Your task to perform on an android device: Search for top rated sushi restaurant Image 0: 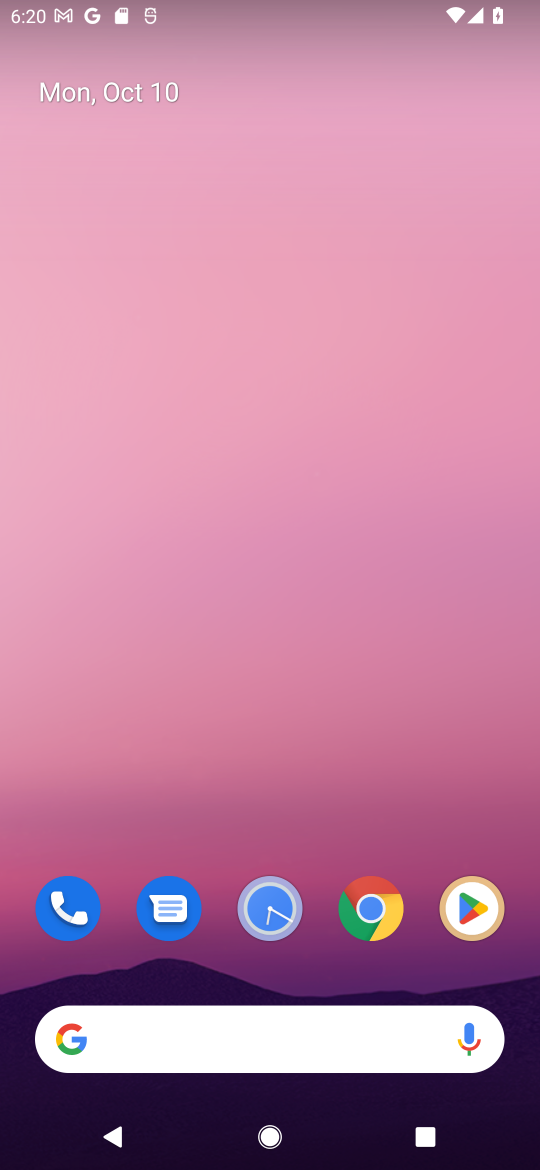
Step 0: drag from (300, 973) to (192, 16)
Your task to perform on an android device: Search for top rated sushi restaurant Image 1: 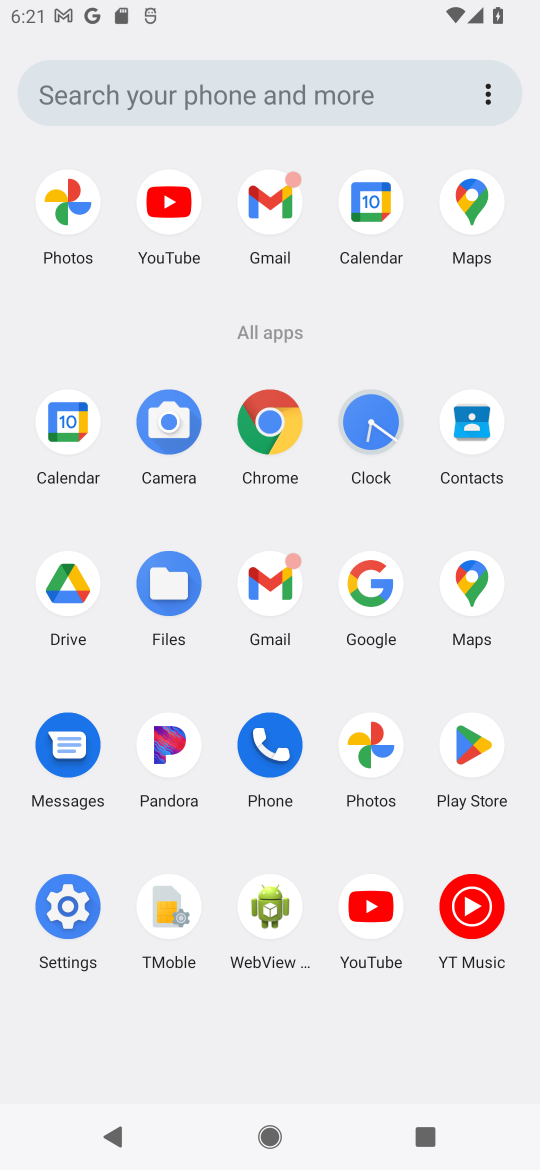
Step 1: click (265, 426)
Your task to perform on an android device: Search for top rated sushi restaurant Image 2: 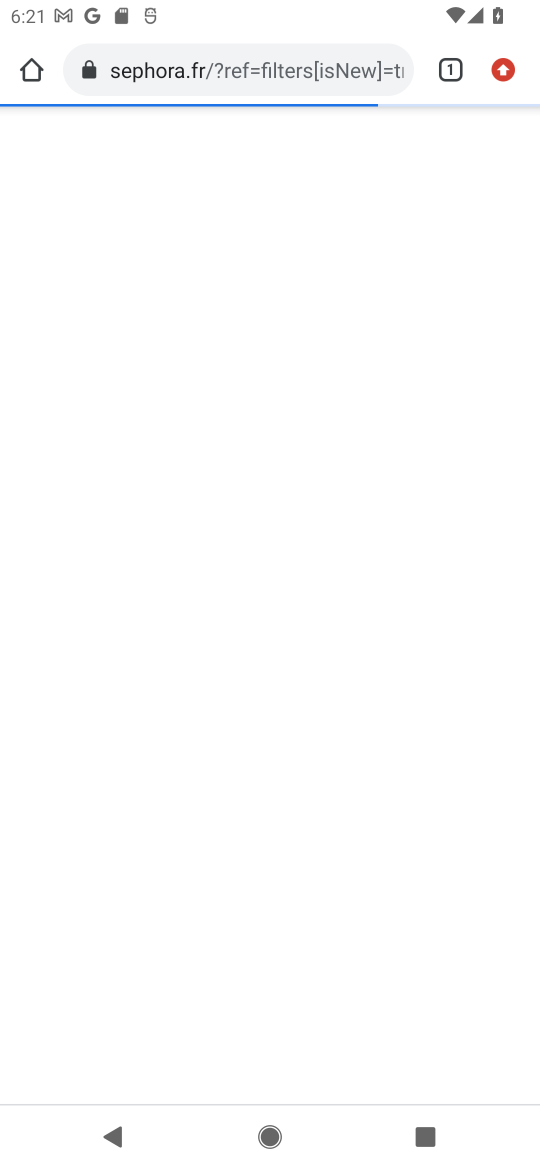
Step 2: click (251, 48)
Your task to perform on an android device: Search for top rated sushi restaurant Image 3: 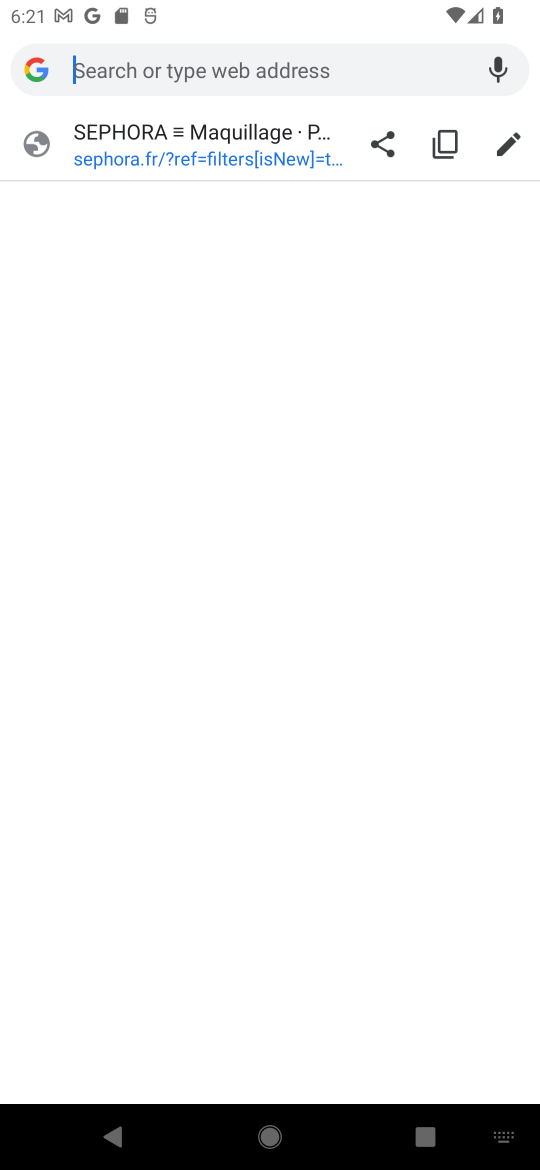
Step 3: type "top rated sushi restaurant"
Your task to perform on an android device: Search for top rated sushi restaurant Image 4: 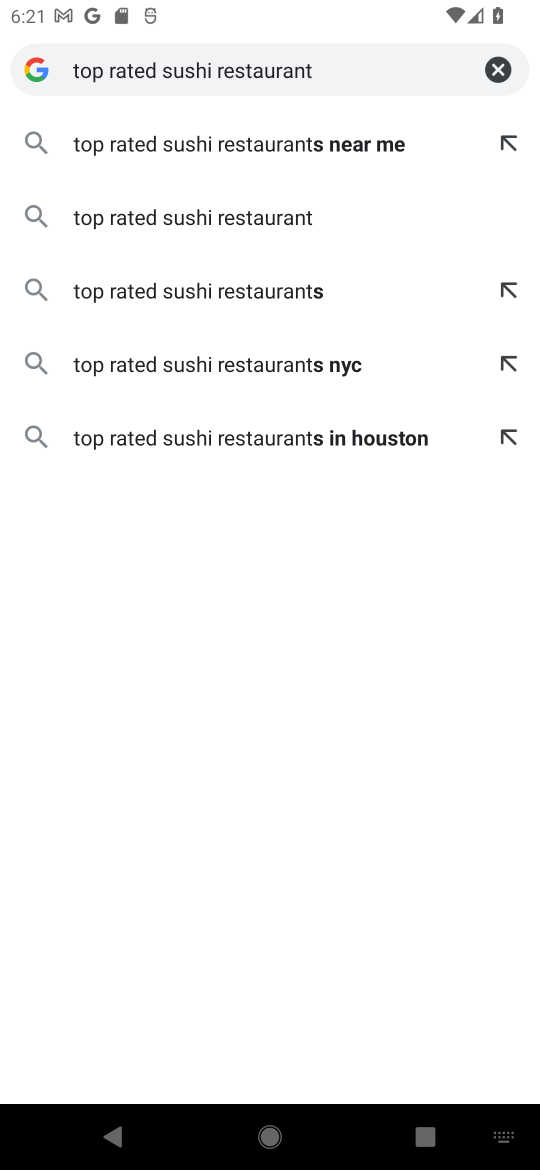
Step 4: press enter
Your task to perform on an android device: Search for top rated sushi restaurant Image 5: 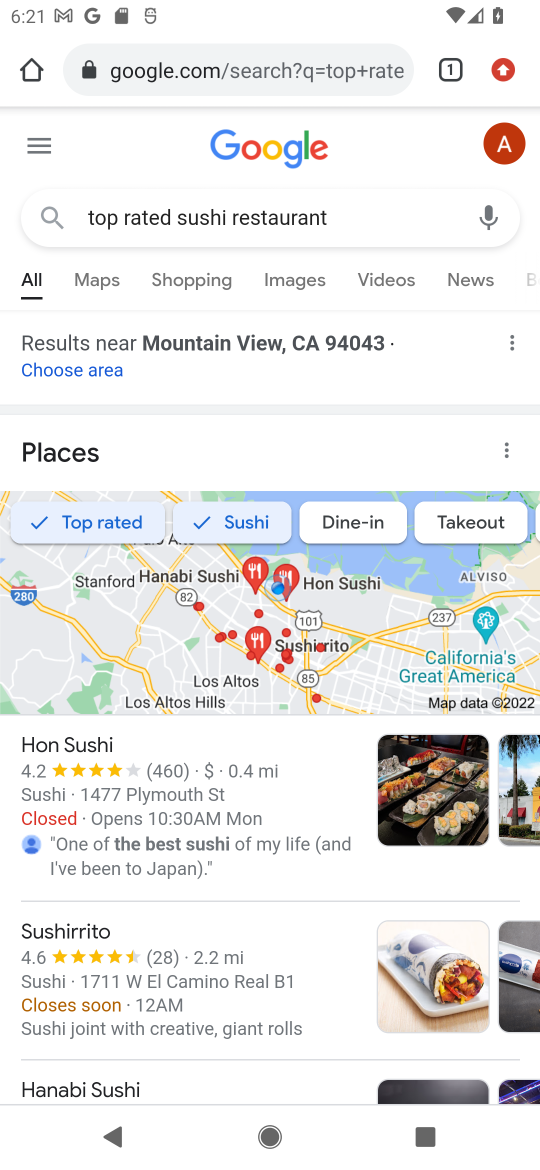
Step 5: task complete